Your task to perform on an android device: turn off wifi Image 0: 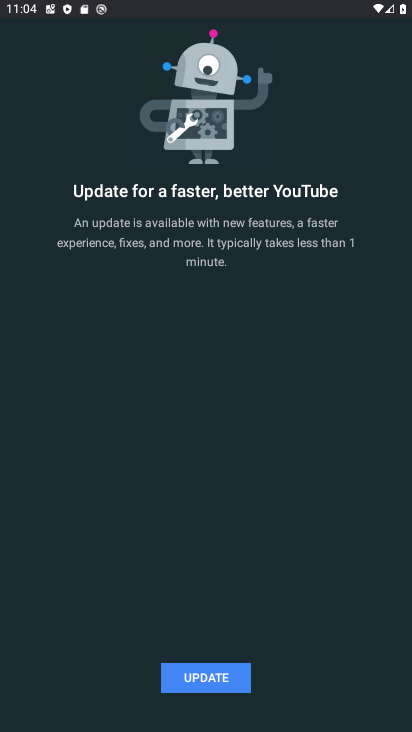
Step 0: press home button
Your task to perform on an android device: turn off wifi Image 1: 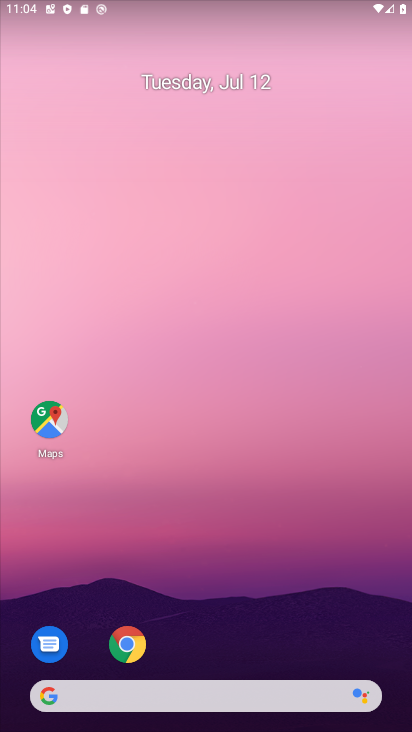
Step 1: drag from (128, 575) to (329, 3)
Your task to perform on an android device: turn off wifi Image 2: 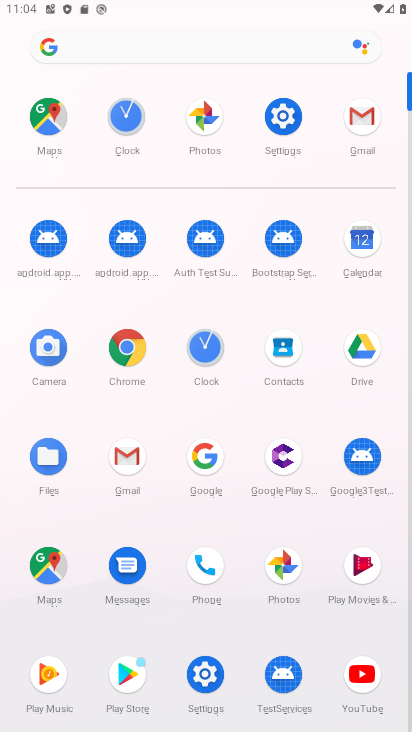
Step 2: click (292, 113)
Your task to perform on an android device: turn off wifi Image 3: 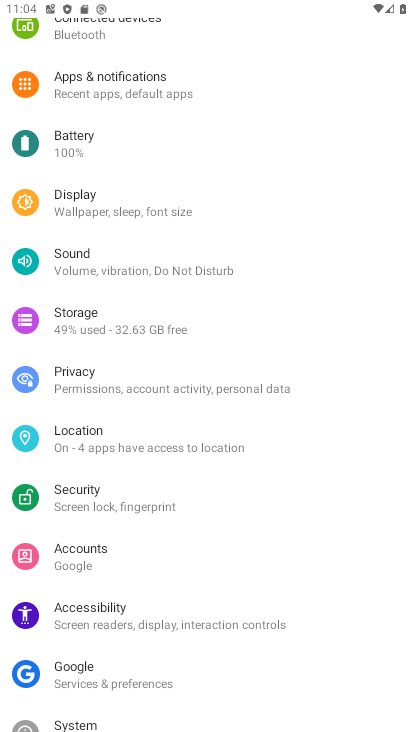
Step 3: drag from (321, 132) to (245, 583)
Your task to perform on an android device: turn off wifi Image 4: 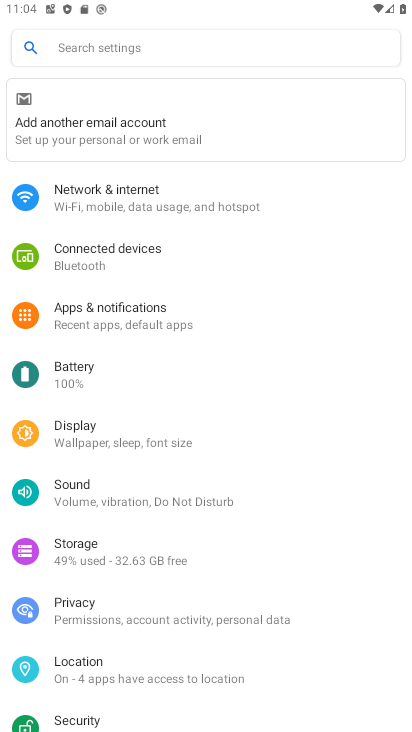
Step 4: click (281, 203)
Your task to perform on an android device: turn off wifi Image 5: 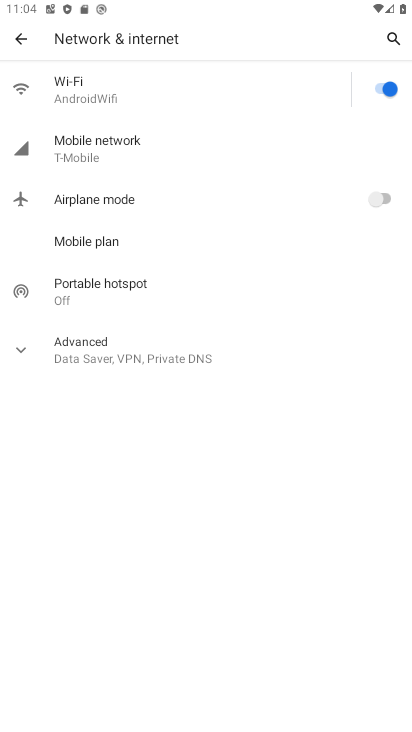
Step 5: click (394, 83)
Your task to perform on an android device: turn off wifi Image 6: 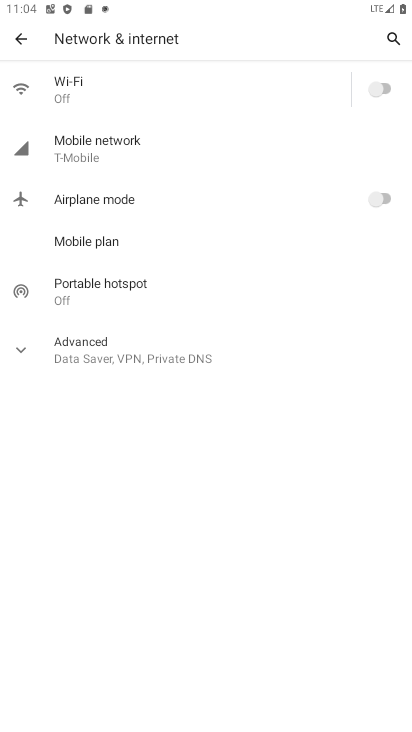
Step 6: task complete